Your task to perform on an android device: allow cookies in the chrome app Image 0: 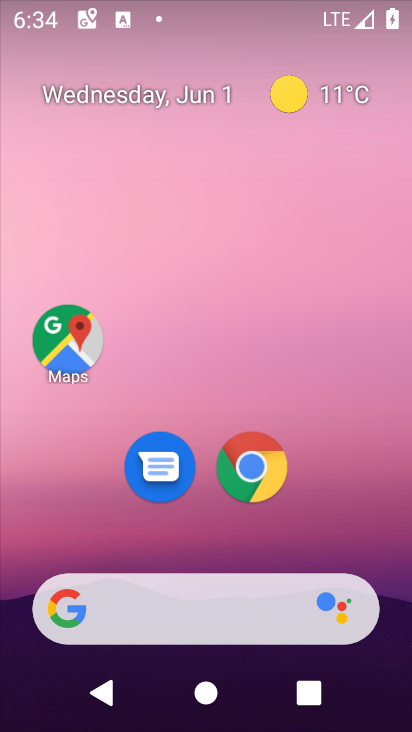
Step 0: click (262, 465)
Your task to perform on an android device: allow cookies in the chrome app Image 1: 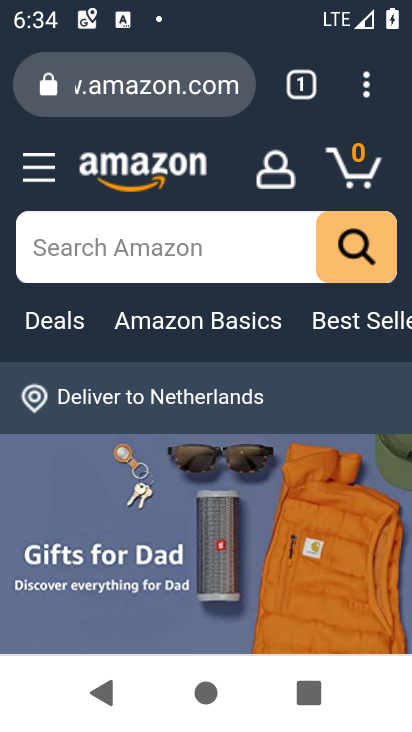
Step 1: click (369, 90)
Your task to perform on an android device: allow cookies in the chrome app Image 2: 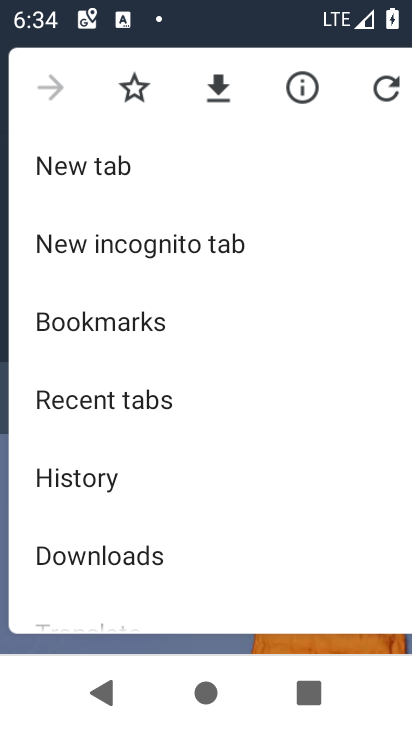
Step 2: drag from (274, 315) to (254, 101)
Your task to perform on an android device: allow cookies in the chrome app Image 3: 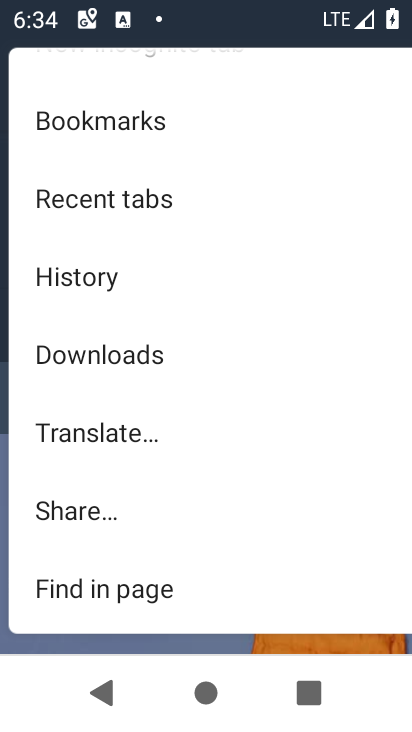
Step 3: drag from (187, 487) to (194, 192)
Your task to perform on an android device: allow cookies in the chrome app Image 4: 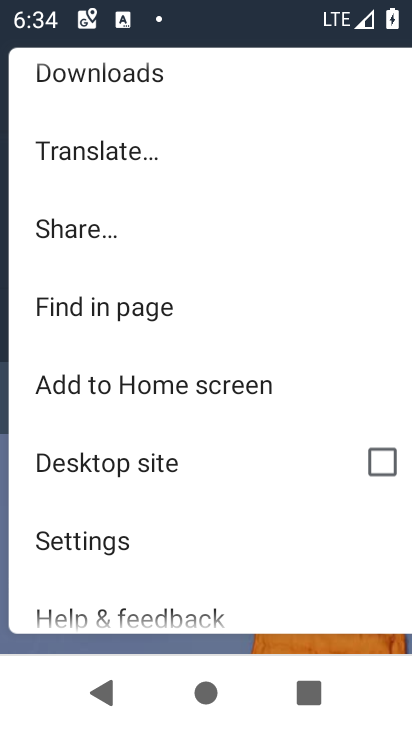
Step 4: click (99, 542)
Your task to perform on an android device: allow cookies in the chrome app Image 5: 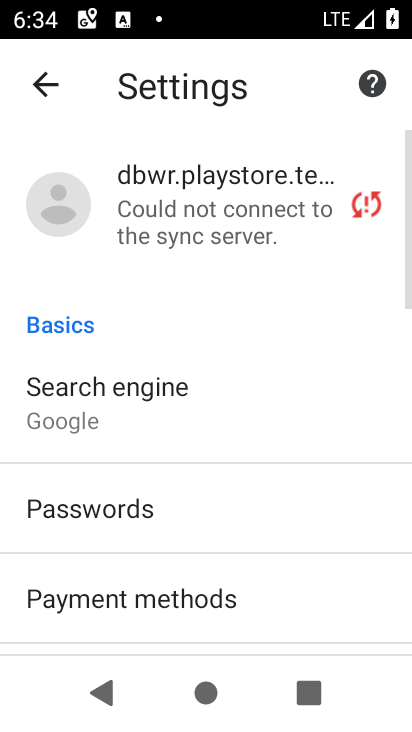
Step 5: drag from (189, 481) to (165, 67)
Your task to perform on an android device: allow cookies in the chrome app Image 6: 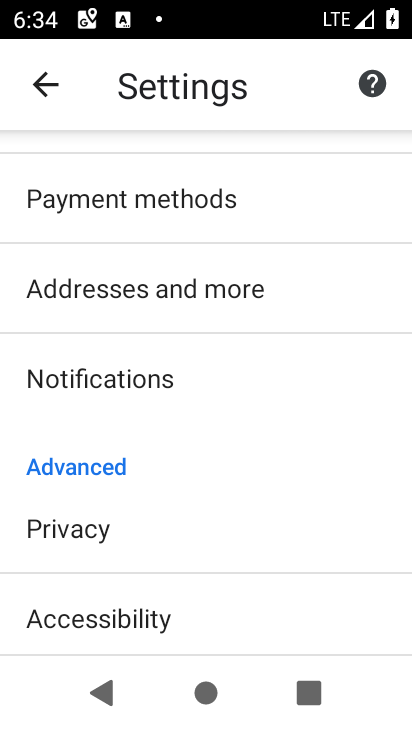
Step 6: drag from (193, 564) to (207, 199)
Your task to perform on an android device: allow cookies in the chrome app Image 7: 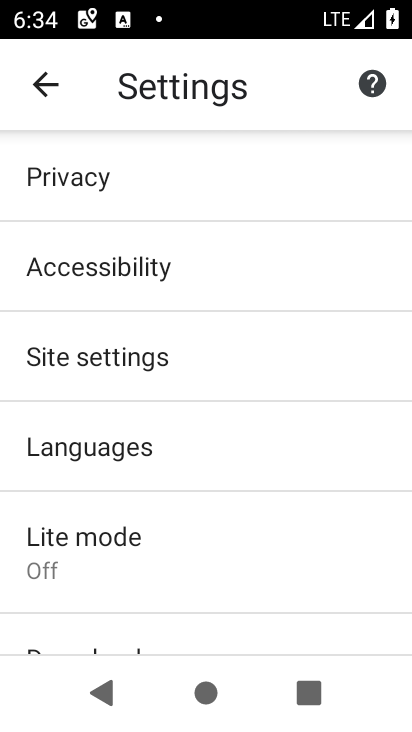
Step 7: click (178, 366)
Your task to perform on an android device: allow cookies in the chrome app Image 8: 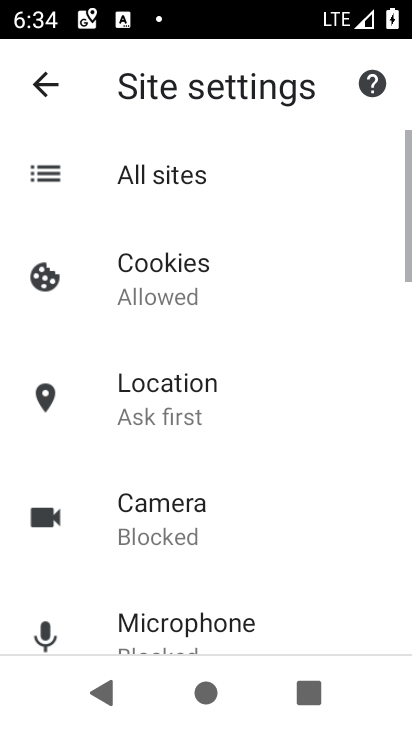
Step 8: click (199, 291)
Your task to perform on an android device: allow cookies in the chrome app Image 9: 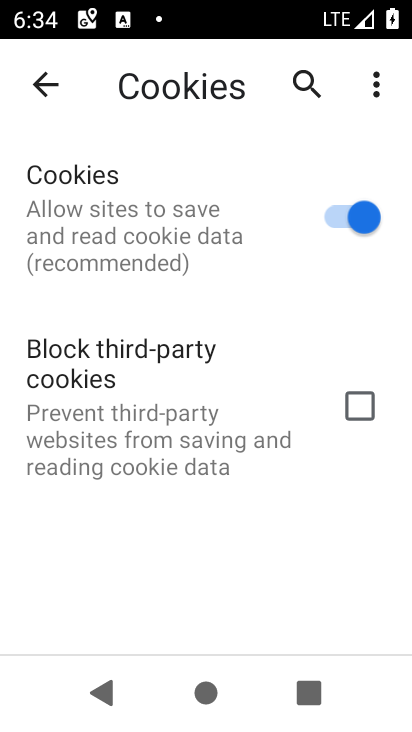
Step 9: task complete